Your task to perform on an android device: Go to settings Image 0: 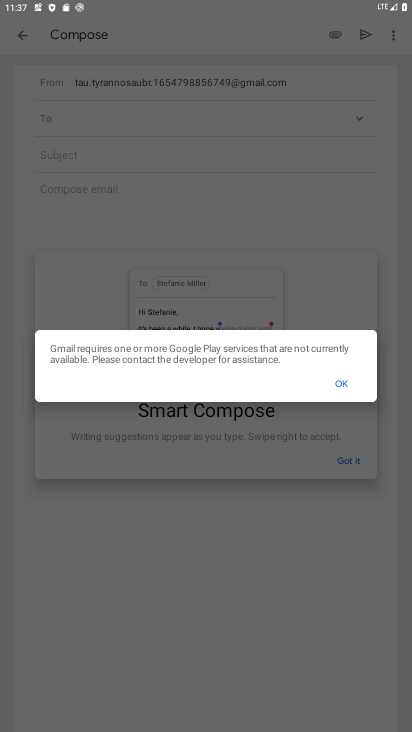
Step 0: press home button
Your task to perform on an android device: Go to settings Image 1: 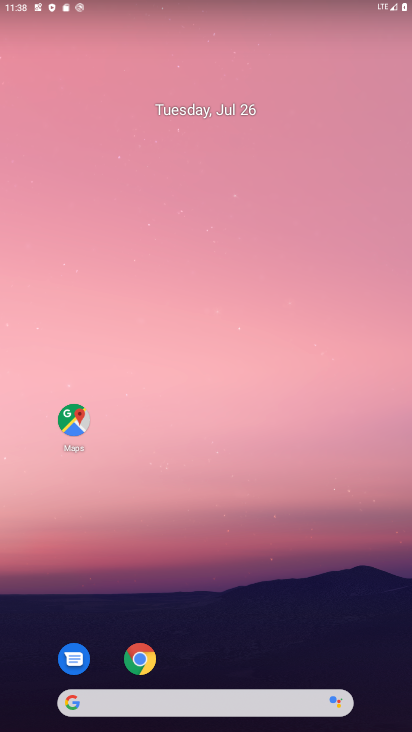
Step 1: drag from (12, 487) to (187, 76)
Your task to perform on an android device: Go to settings Image 2: 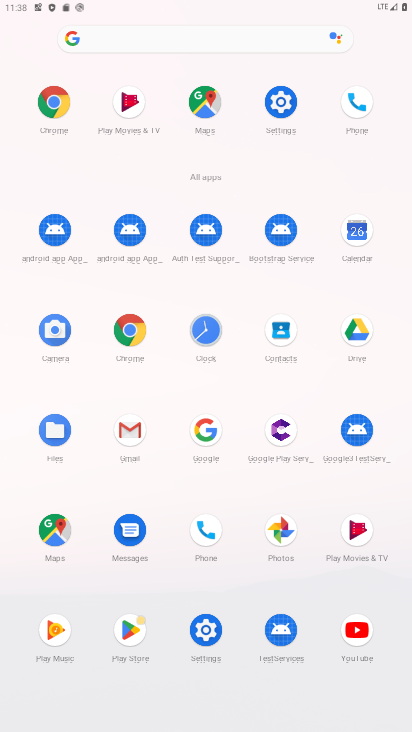
Step 2: click (287, 101)
Your task to perform on an android device: Go to settings Image 3: 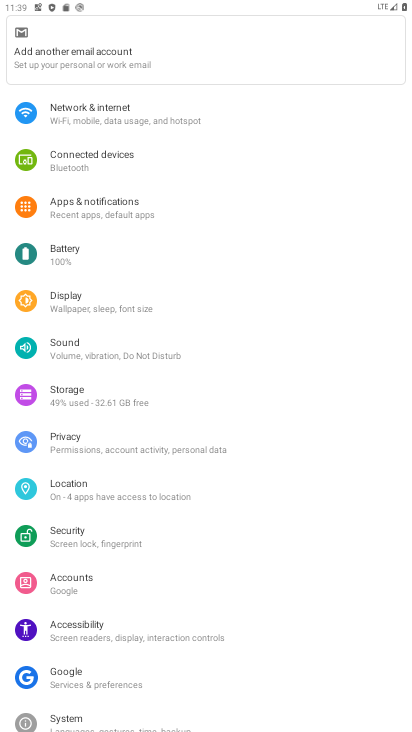
Step 3: task complete